Your task to perform on an android device: open sync settings in chrome Image 0: 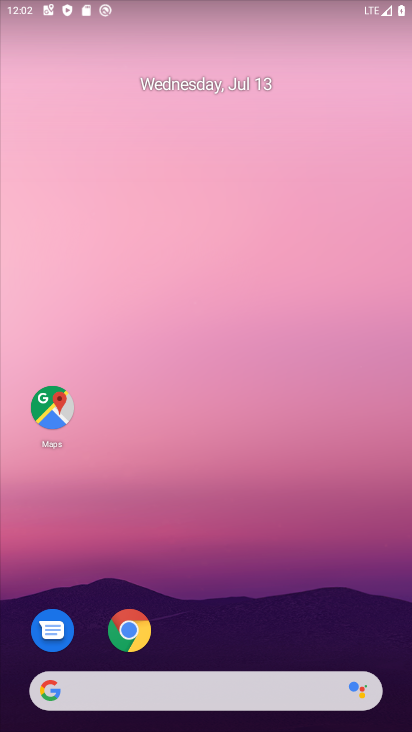
Step 0: drag from (395, 668) to (162, 70)
Your task to perform on an android device: open sync settings in chrome Image 1: 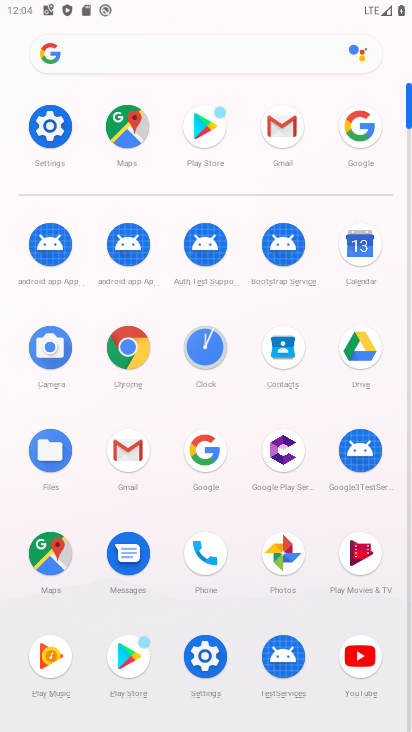
Step 1: click (105, 337)
Your task to perform on an android device: open sync settings in chrome Image 2: 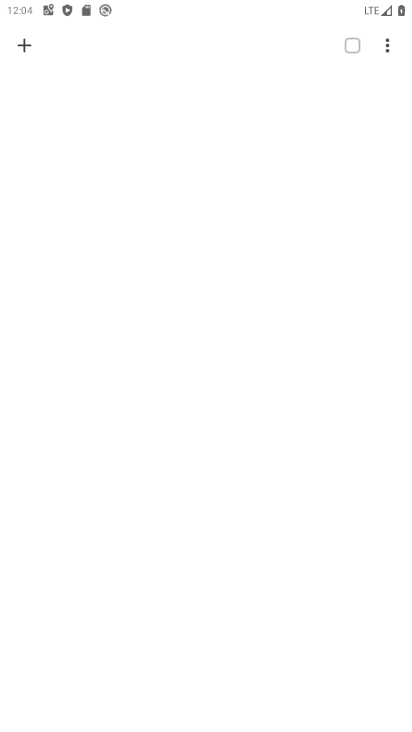
Step 2: click (389, 41)
Your task to perform on an android device: open sync settings in chrome Image 3: 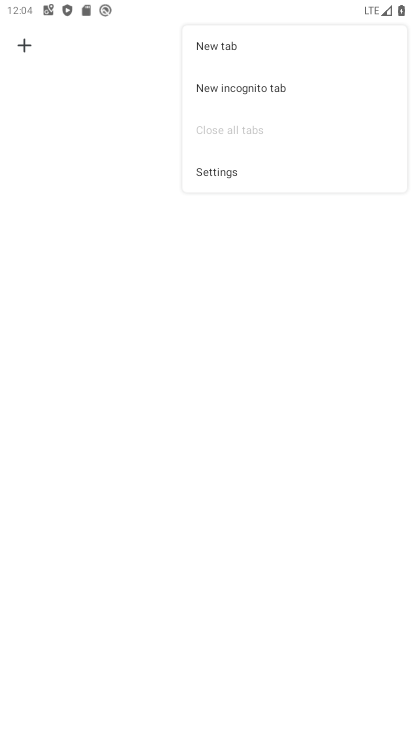
Step 3: click (270, 173)
Your task to perform on an android device: open sync settings in chrome Image 4: 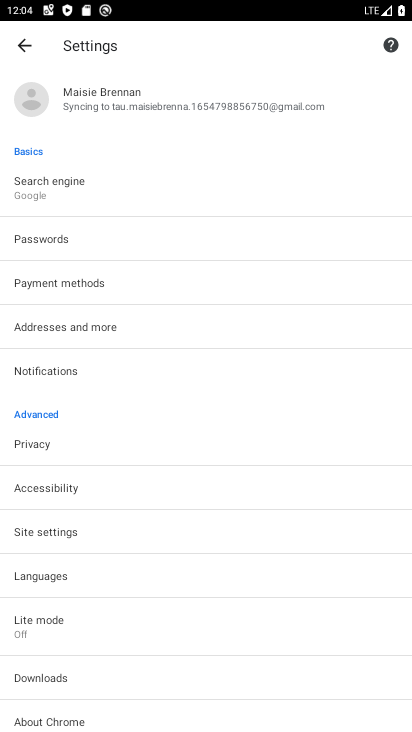
Step 4: click (94, 537)
Your task to perform on an android device: open sync settings in chrome Image 5: 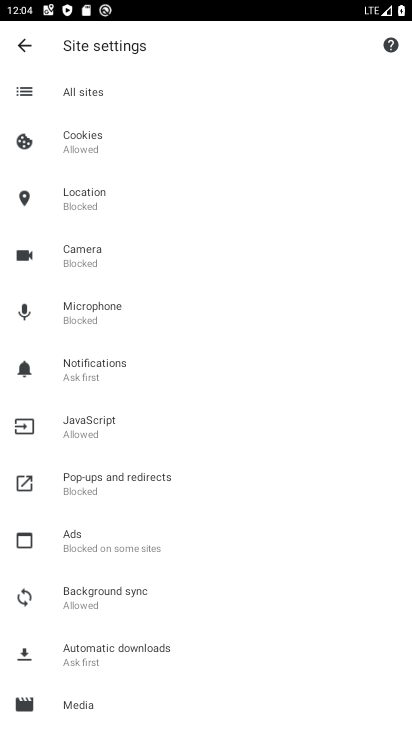
Step 5: click (150, 590)
Your task to perform on an android device: open sync settings in chrome Image 6: 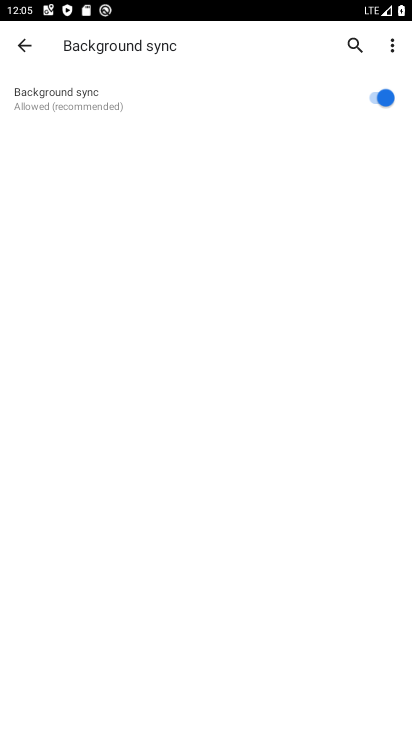
Step 6: task complete